Your task to perform on an android device: Open Youtube and go to "Your channel" Image 0: 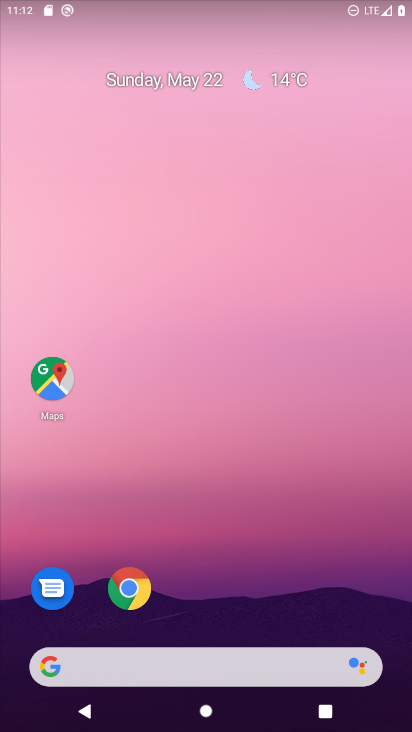
Step 0: drag from (220, 626) to (224, 212)
Your task to perform on an android device: Open Youtube and go to "Your channel" Image 1: 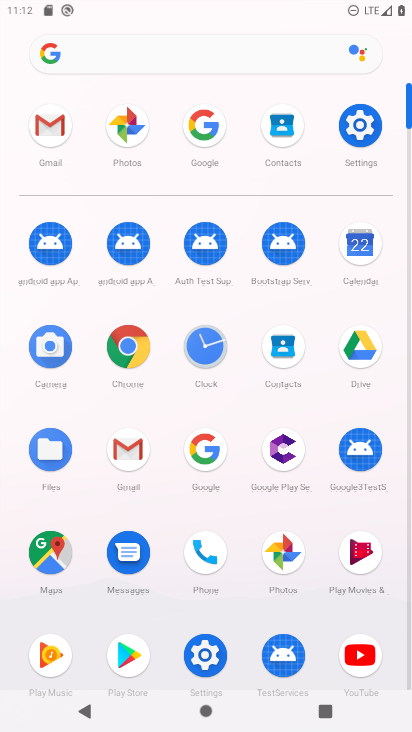
Step 1: click (349, 669)
Your task to perform on an android device: Open Youtube and go to "Your channel" Image 2: 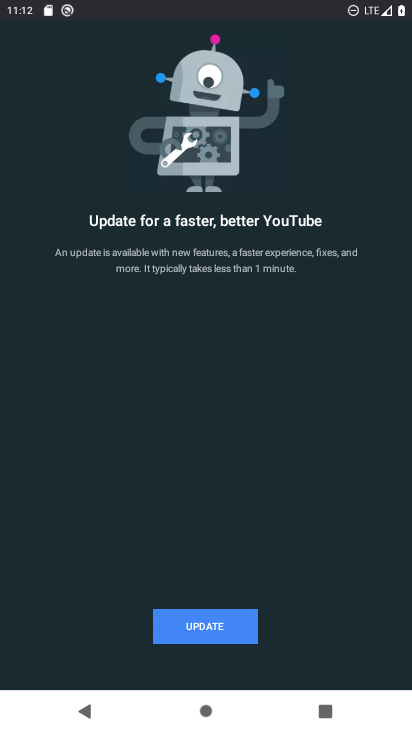
Step 2: click (234, 614)
Your task to perform on an android device: Open Youtube and go to "Your channel" Image 3: 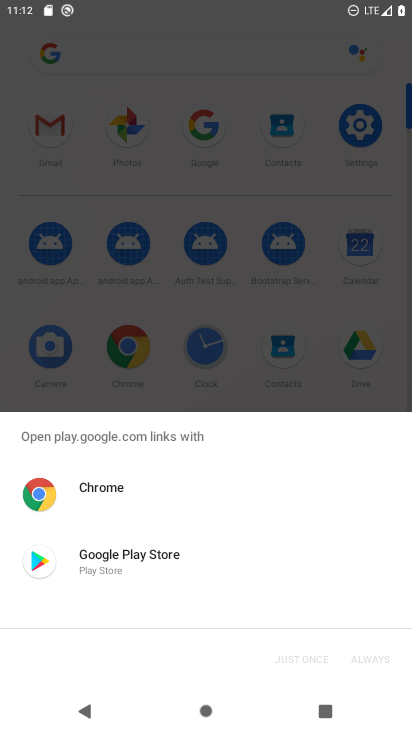
Step 3: click (161, 572)
Your task to perform on an android device: Open Youtube and go to "Your channel" Image 4: 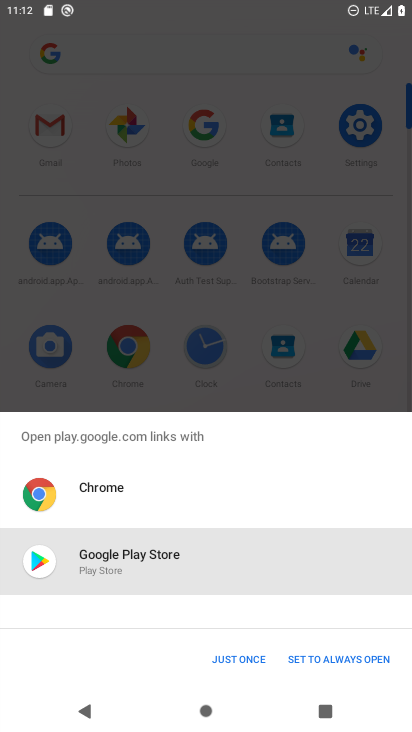
Step 4: click (247, 652)
Your task to perform on an android device: Open Youtube and go to "Your channel" Image 5: 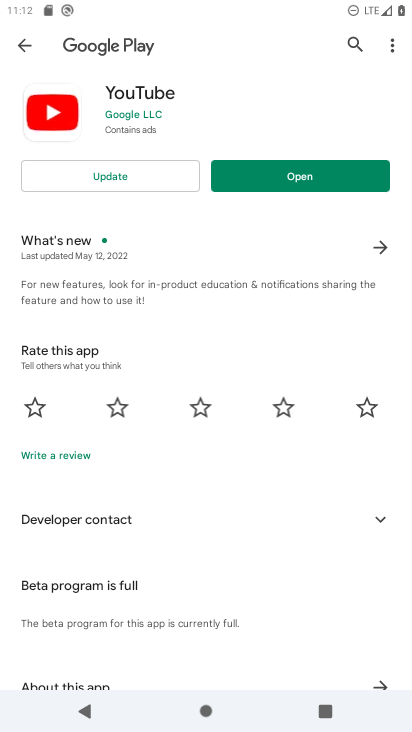
Step 5: click (257, 154)
Your task to perform on an android device: Open Youtube and go to "Your channel" Image 6: 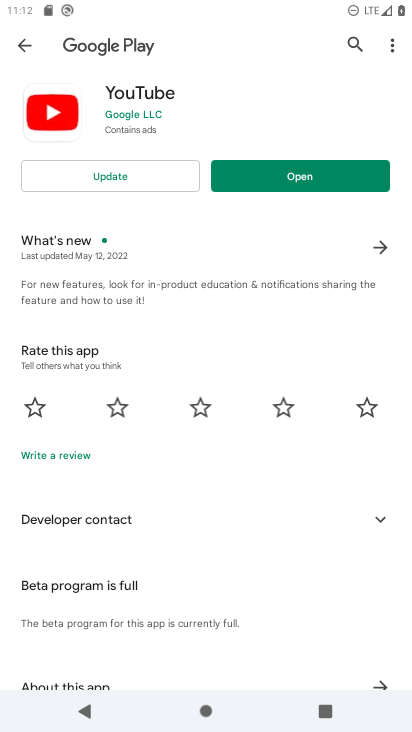
Step 6: click (263, 163)
Your task to perform on an android device: Open Youtube and go to "Your channel" Image 7: 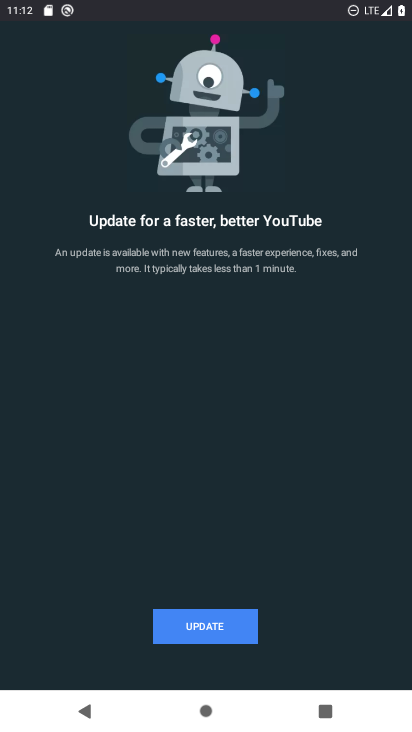
Step 7: click (226, 611)
Your task to perform on an android device: Open Youtube and go to "Your channel" Image 8: 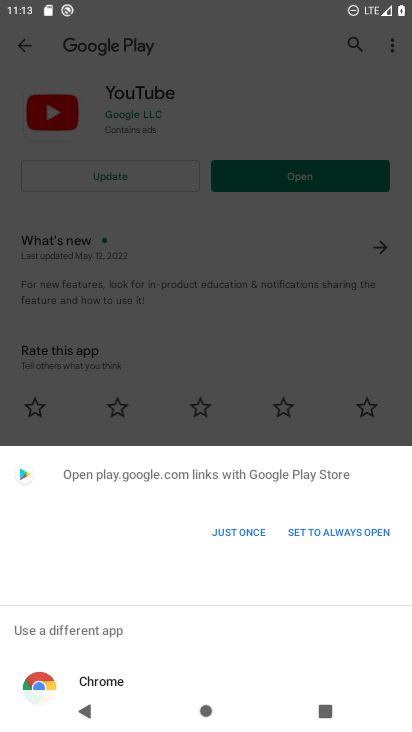
Step 8: click (232, 528)
Your task to perform on an android device: Open Youtube and go to "Your channel" Image 9: 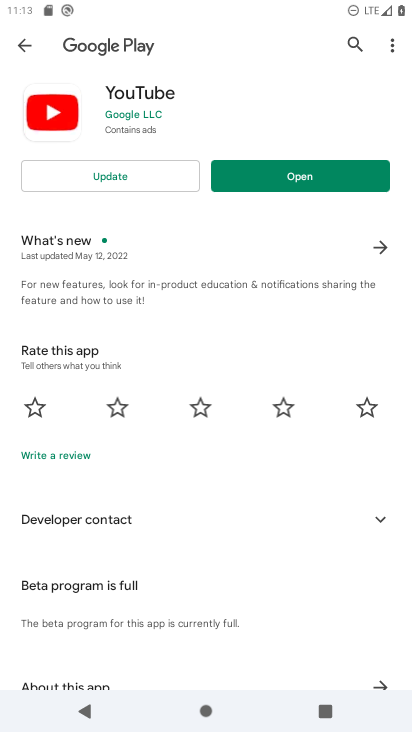
Step 9: click (147, 173)
Your task to perform on an android device: Open Youtube and go to "Your channel" Image 10: 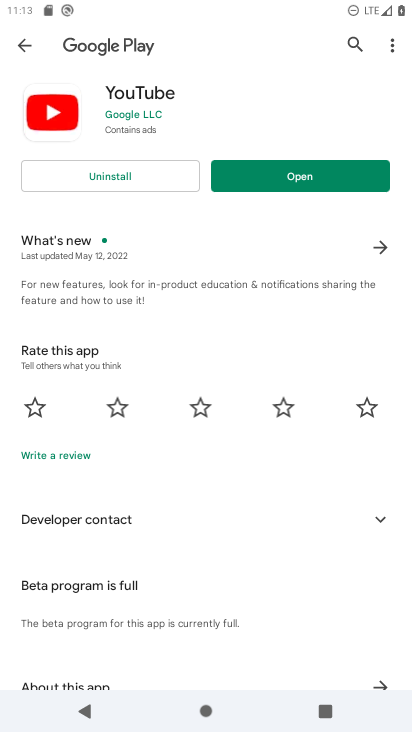
Step 10: click (292, 172)
Your task to perform on an android device: Open Youtube and go to "Your channel" Image 11: 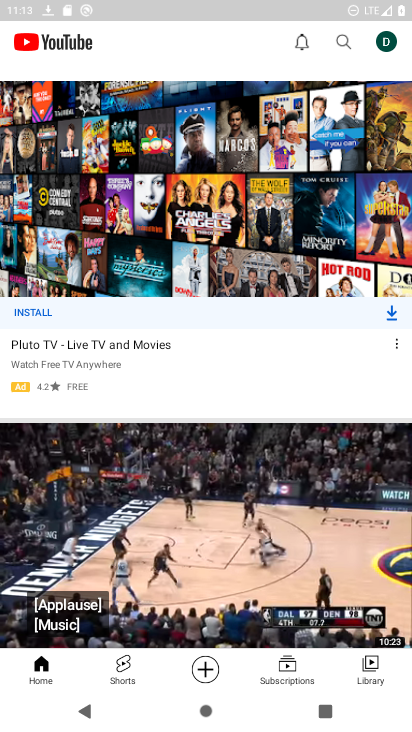
Step 11: click (387, 42)
Your task to perform on an android device: Open Youtube and go to "Your channel" Image 12: 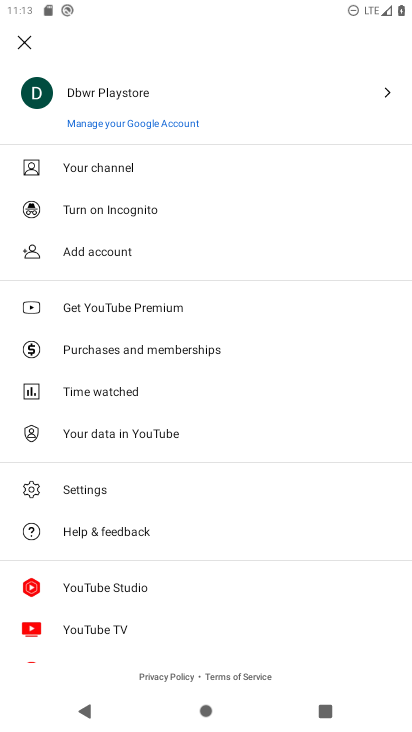
Step 12: click (135, 161)
Your task to perform on an android device: Open Youtube and go to "Your channel" Image 13: 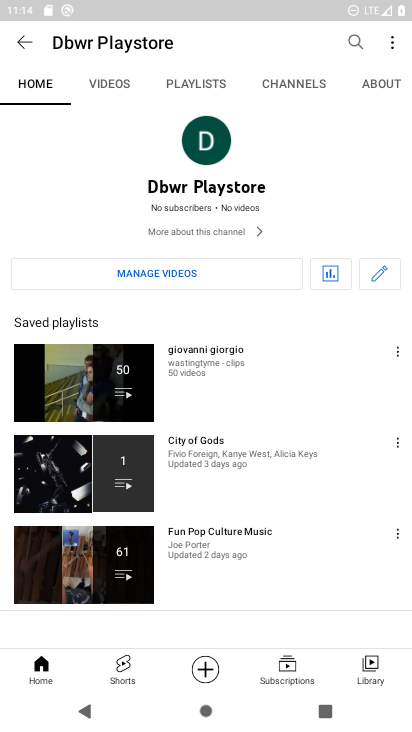
Step 13: task complete